Your task to perform on an android device: Check the news Image 0: 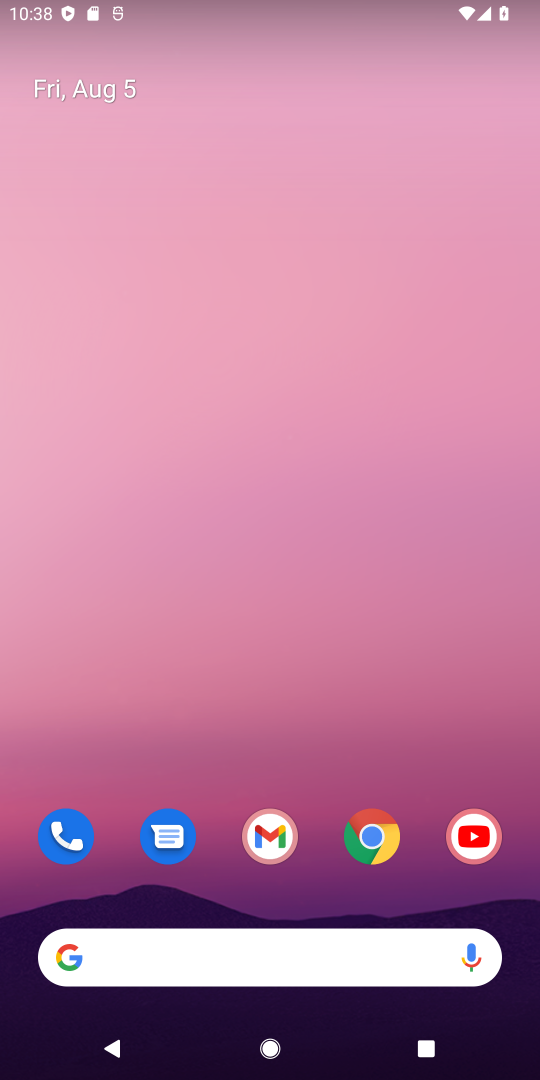
Step 0: drag from (286, 727) to (303, 31)
Your task to perform on an android device: Check the news Image 1: 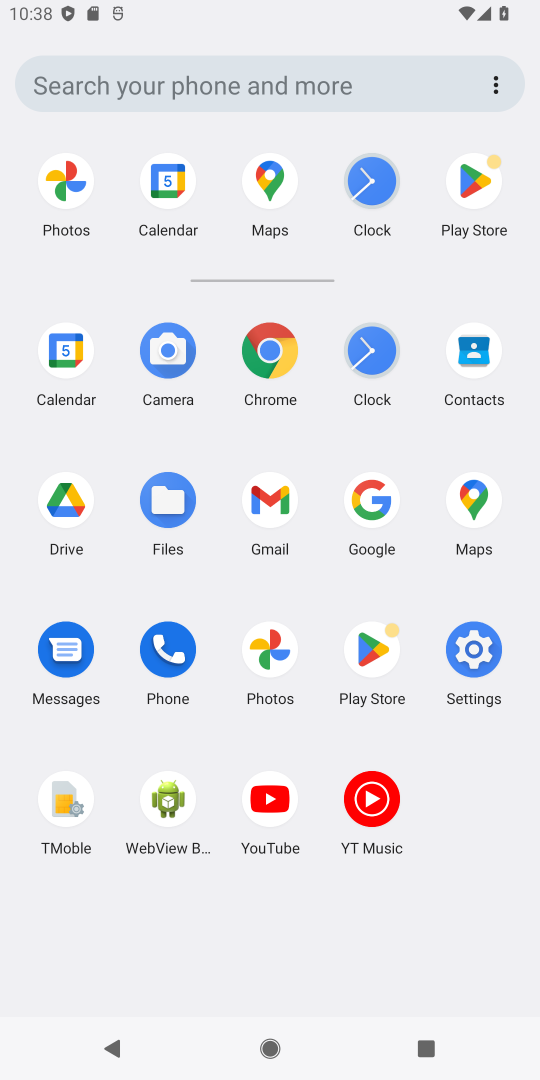
Step 1: click (274, 354)
Your task to perform on an android device: Check the news Image 2: 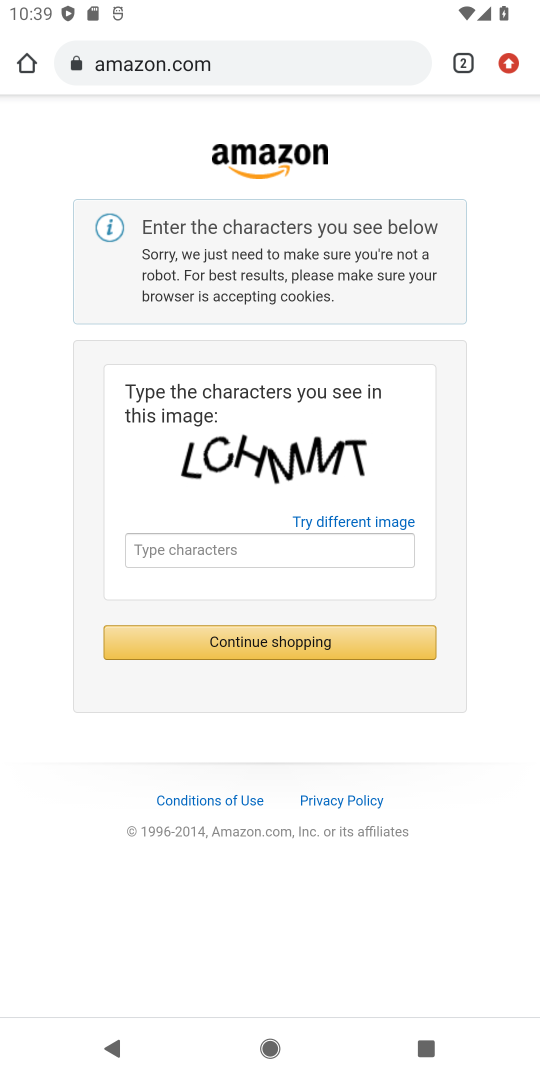
Step 2: click (208, 59)
Your task to perform on an android device: Check the news Image 3: 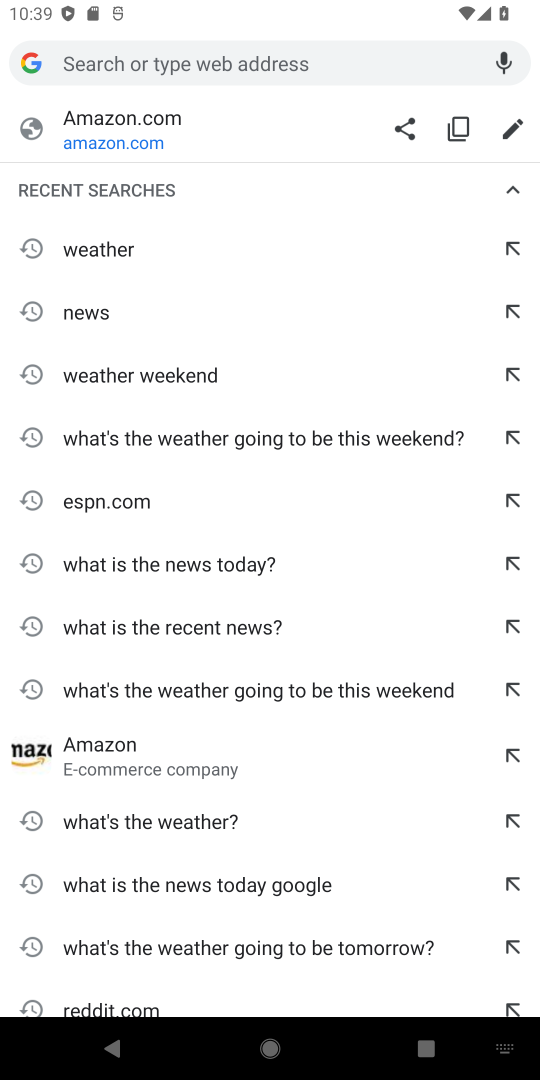
Step 3: click (108, 311)
Your task to perform on an android device: Check the news Image 4: 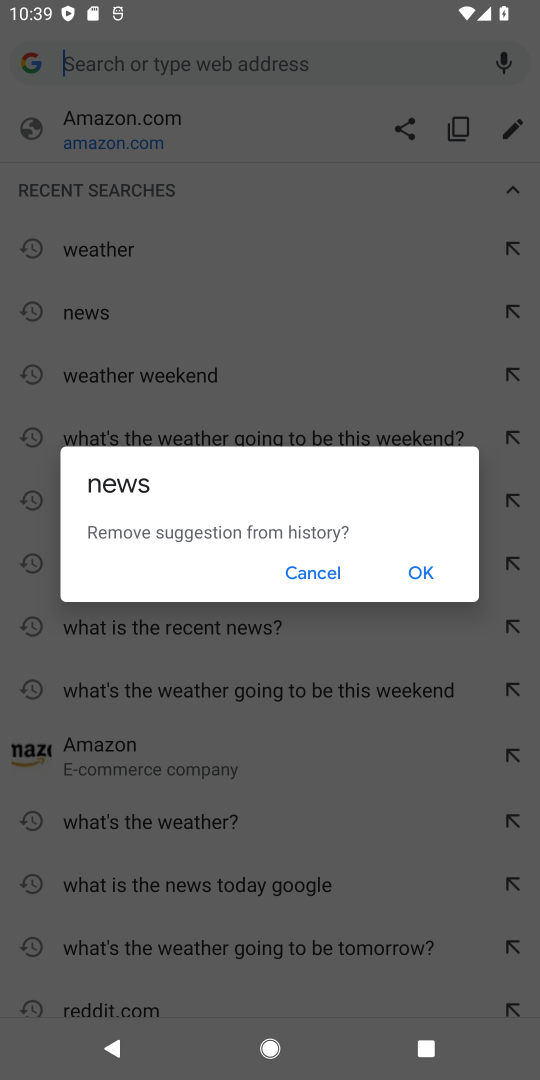
Step 4: click (313, 582)
Your task to perform on an android device: Check the news Image 5: 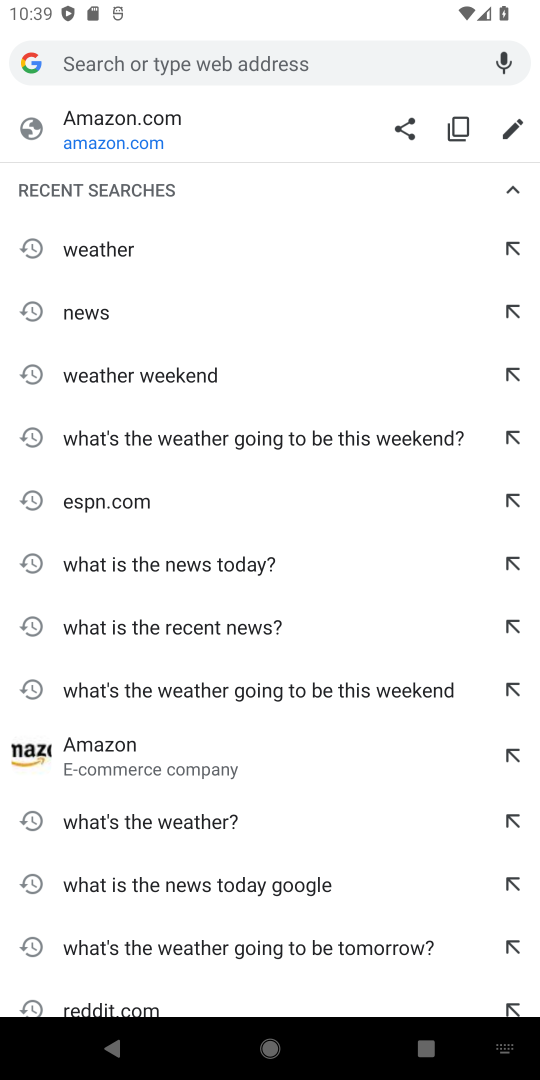
Step 5: click (100, 310)
Your task to perform on an android device: Check the news Image 6: 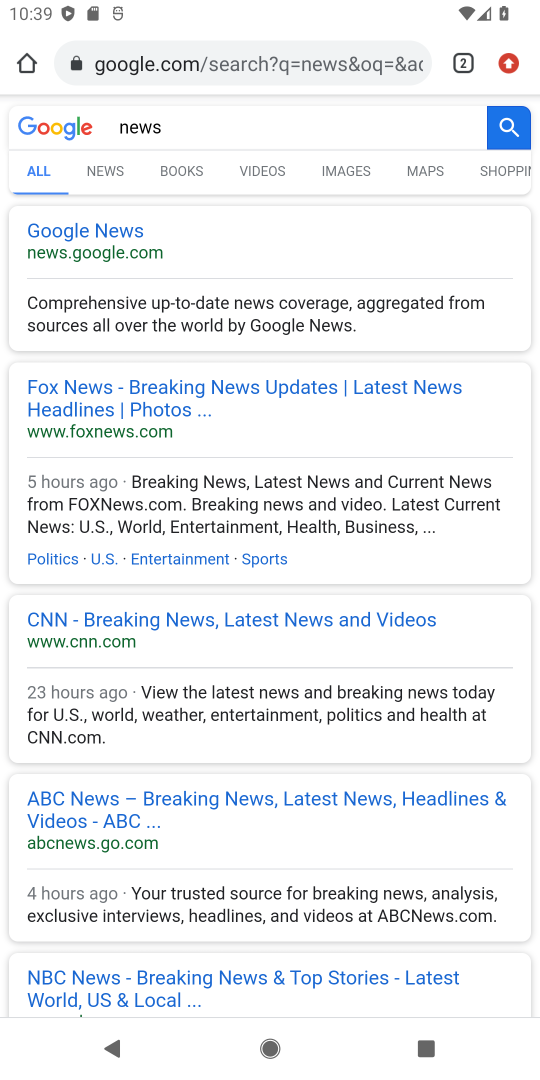
Step 6: click (64, 238)
Your task to perform on an android device: Check the news Image 7: 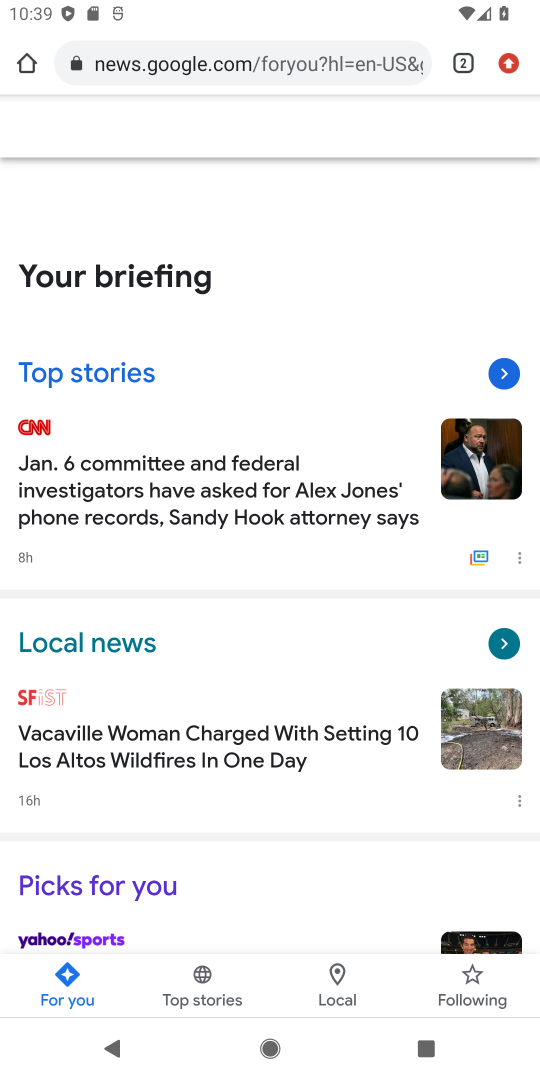
Step 7: task complete